Your task to perform on an android device: turn pop-ups off in chrome Image 0: 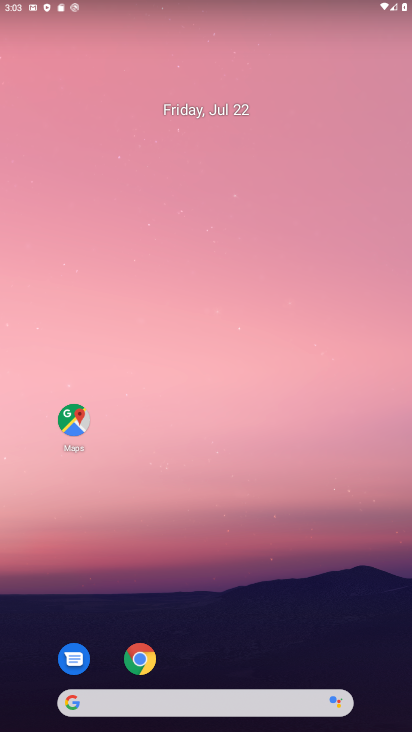
Step 0: click (141, 656)
Your task to perform on an android device: turn pop-ups off in chrome Image 1: 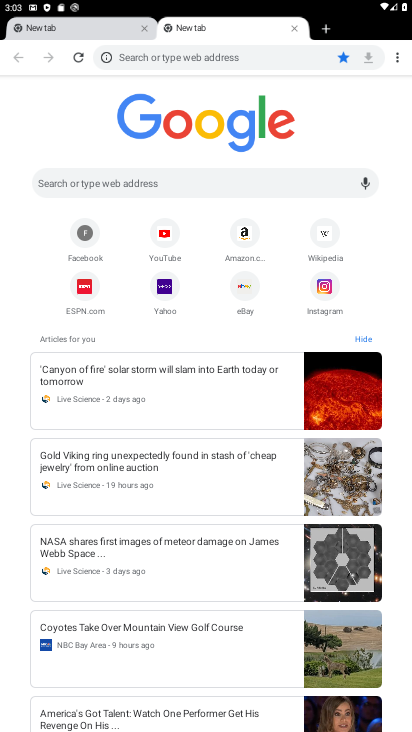
Step 1: click (402, 55)
Your task to perform on an android device: turn pop-ups off in chrome Image 2: 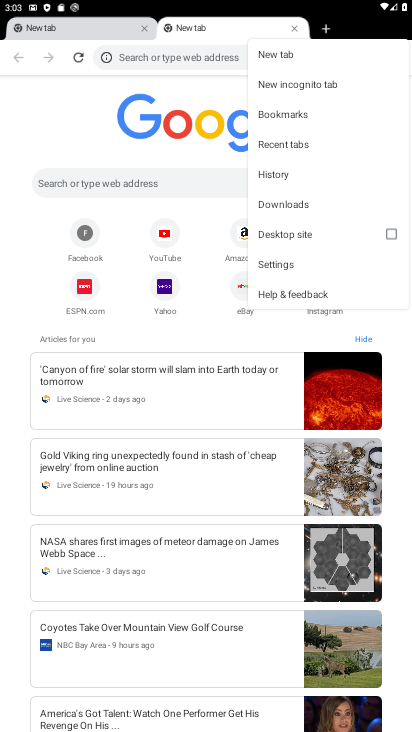
Step 2: click (276, 261)
Your task to perform on an android device: turn pop-ups off in chrome Image 3: 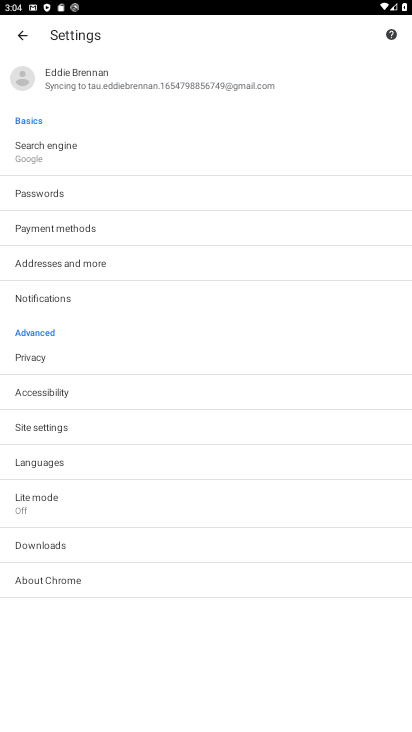
Step 3: click (73, 435)
Your task to perform on an android device: turn pop-ups off in chrome Image 4: 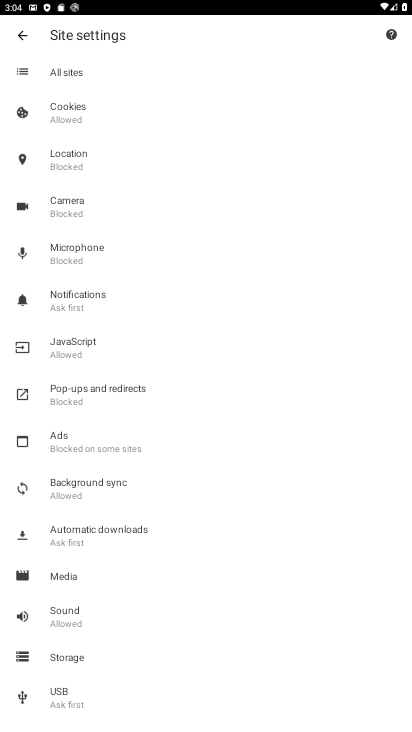
Step 4: click (92, 393)
Your task to perform on an android device: turn pop-ups off in chrome Image 5: 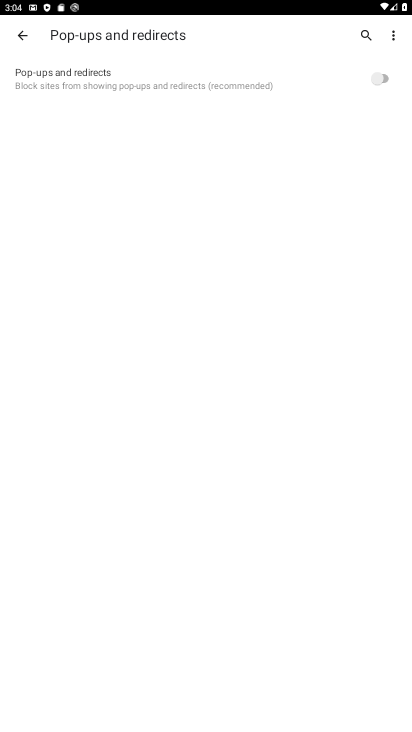
Step 5: task complete